Your task to perform on an android device: When is my next meeting? Image 0: 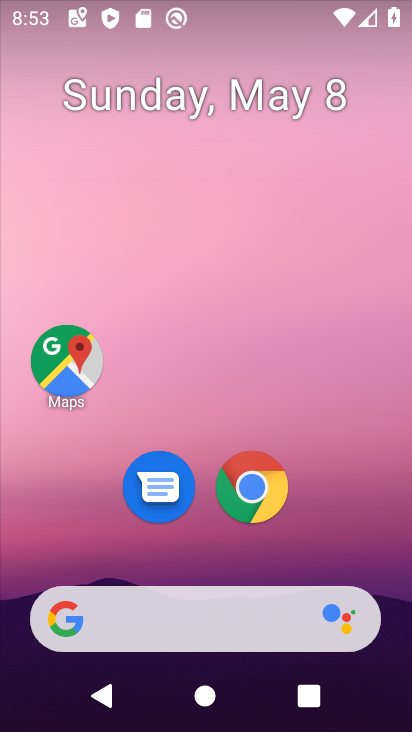
Step 0: drag from (200, 542) to (227, 179)
Your task to perform on an android device: When is my next meeting? Image 1: 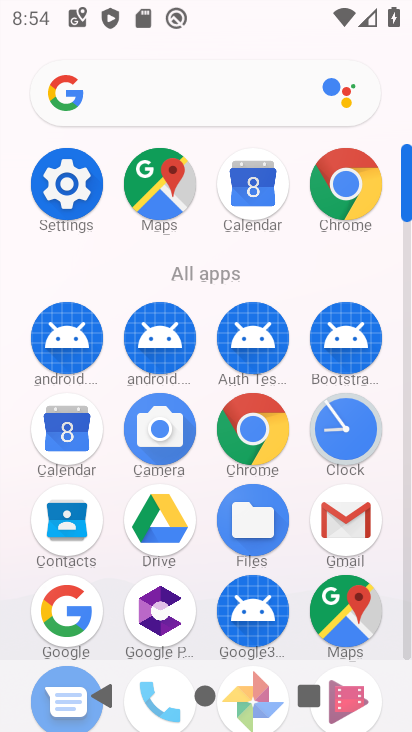
Step 1: click (64, 457)
Your task to perform on an android device: When is my next meeting? Image 2: 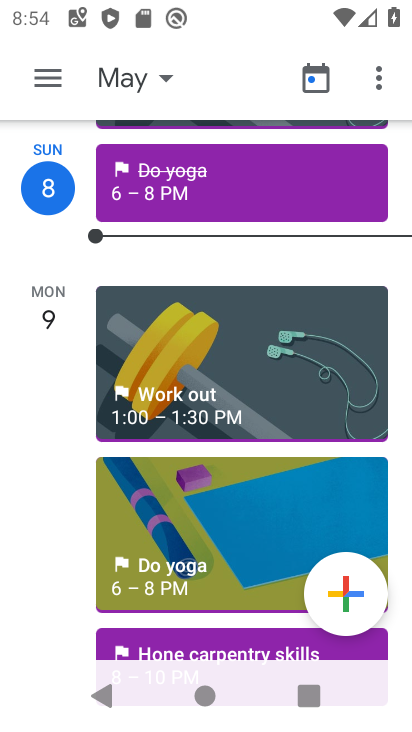
Step 2: drag from (195, 226) to (194, 602)
Your task to perform on an android device: When is my next meeting? Image 3: 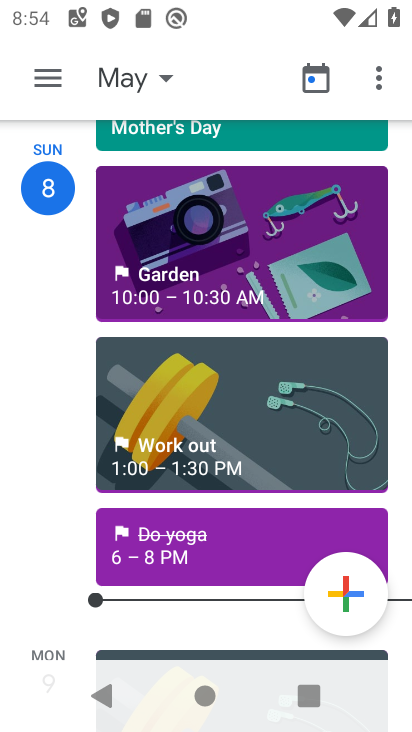
Step 3: click (134, 79)
Your task to perform on an android device: When is my next meeting? Image 4: 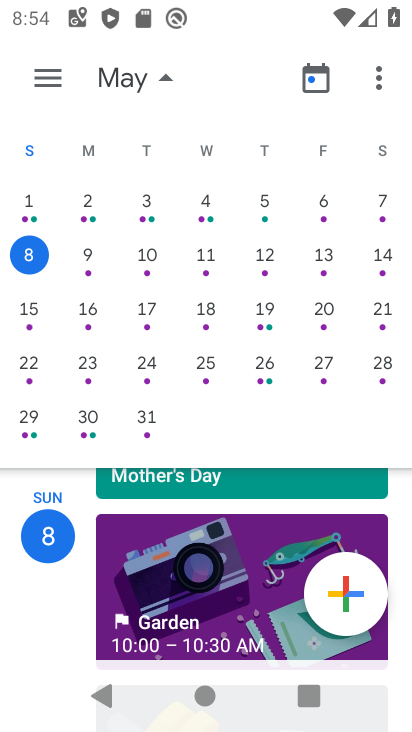
Step 4: click (93, 270)
Your task to perform on an android device: When is my next meeting? Image 5: 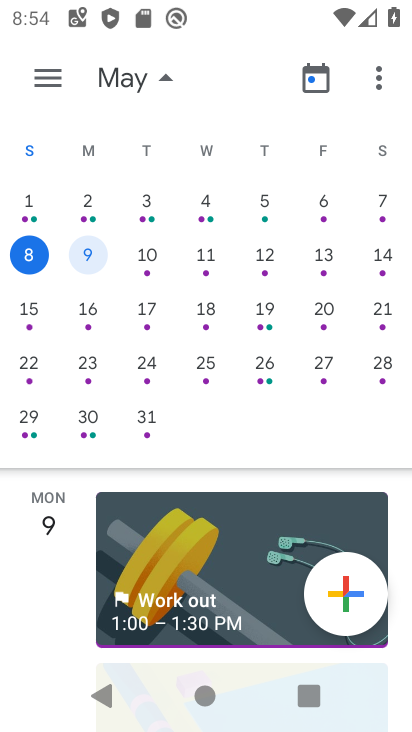
Step 5: drag from (238, 545) to (232, 287)
Your task to perform on an android device: When is my next meeting? Image 6: 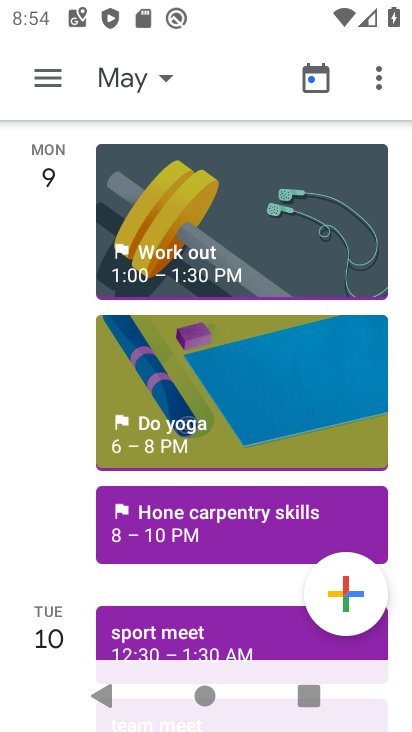
Step 6: drag from (202, 205) to (225, 507)
Your task to perform on an android device: When is my next meeting? Image 7: 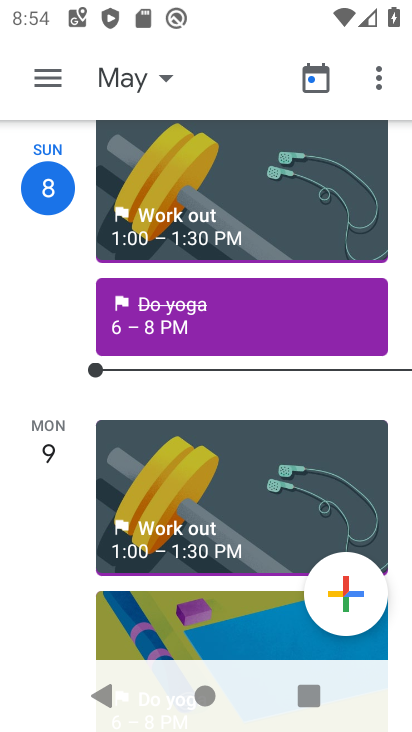
Step 7: click (156, 69)
Your task to perform on an android device: When is my next meeting? Image 8: 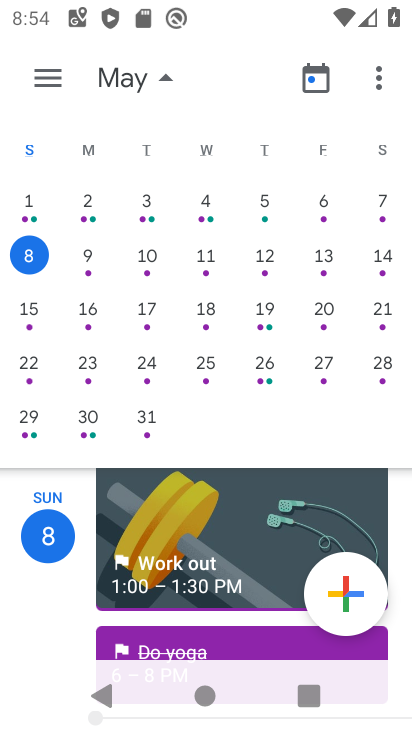
Step 8: click (156, 79)
Your task to perform on an android device: When is my next meeting? Image 9: 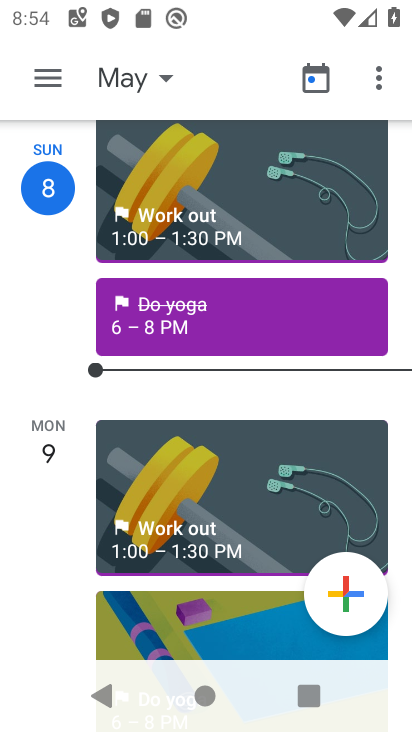
Step 9: drag from (55, 602) to (174, 229)
Your task to perform on an android device: When is my next meeting? Image 10: 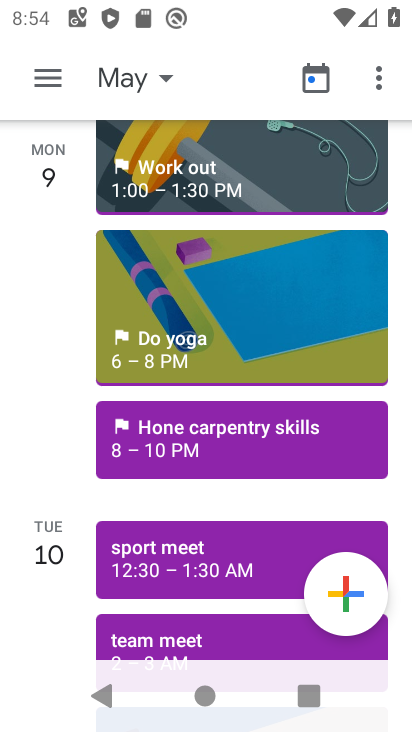
Step 10: drag from (183, 574) to (221, 288)
Your task to perform on an android device: When is my next meeting? Image 11: 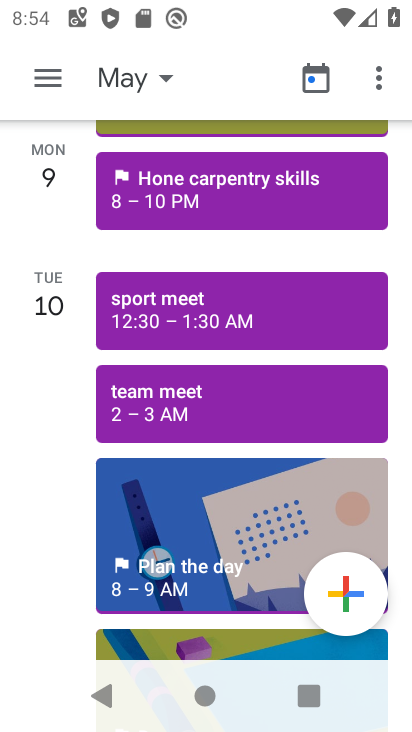
Step 11: click (188, 387)
Your task to perform on an android device: When is my next meeting? Image 12: 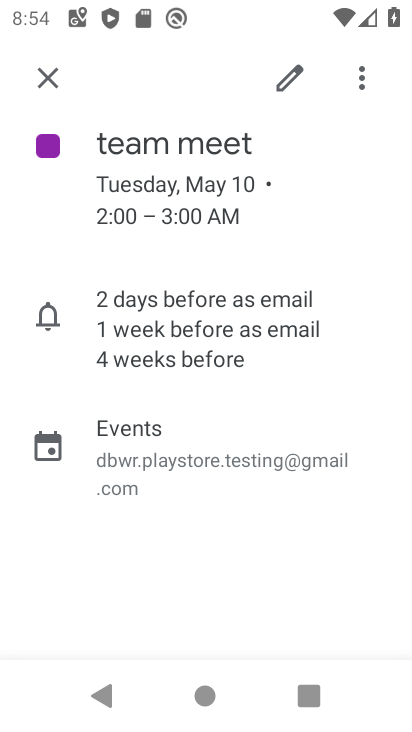
Step 12: task complete